Your task to perform on an android device: visit the assistant section in the google photos Image 0: 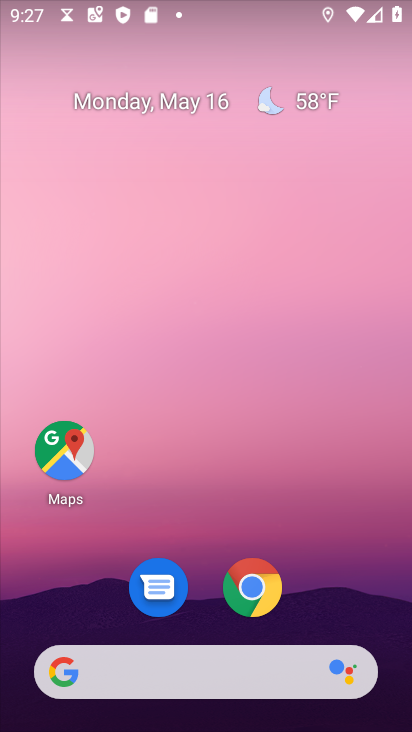
Step 0: drag from (342, 600) to (225, 103)
Your task to perform on an android device: visit the assistant section in the google photos Image 1: 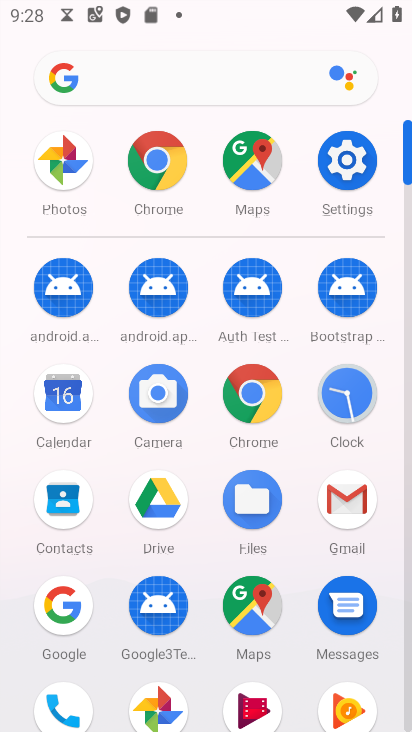
Step 1: click (79, 173)
Your task to perform on an android device: visit the assistant section in the google photos Image 2: 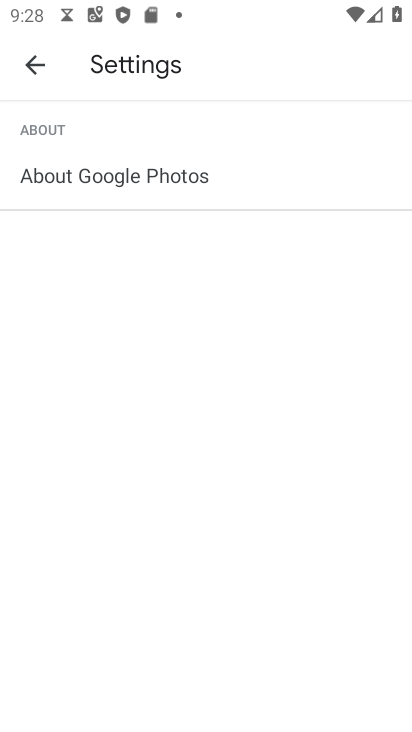
Step 2: click (37, 76)
Your task to perform on an android device: visit the assistant section in the google photos Image 3: 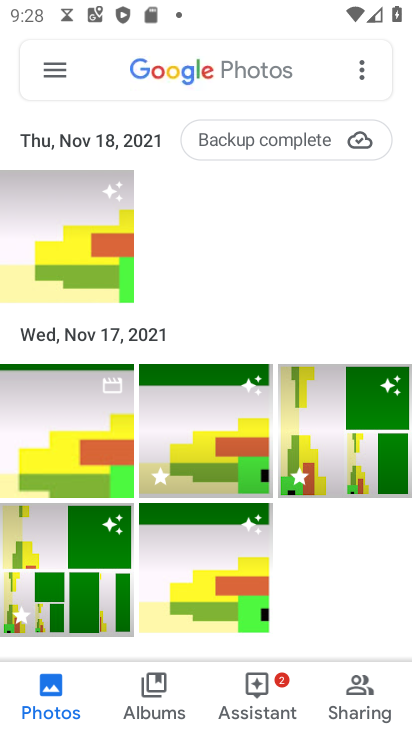
Step 3: click (262, 704)
Your task to perform on an android device: visit the assistant section in the google photos Image 4: 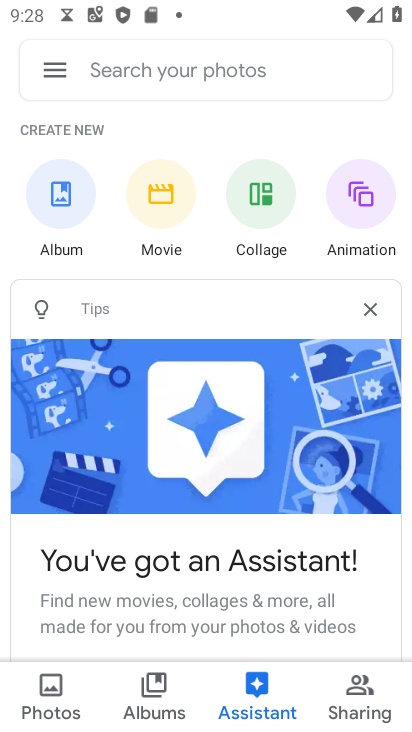
Step 4: task complete